Your task to perform on an android device: delete browsing data in the chrome app Image 0: 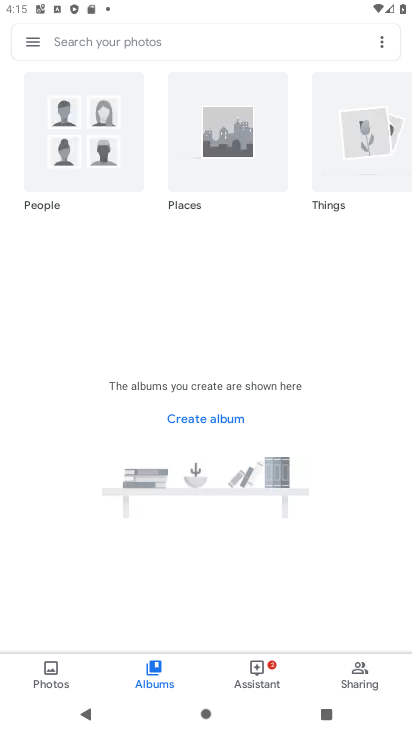
Step 0: press home button
Your task to perform on an android device: delete browsing data in the chrome app Image 1: 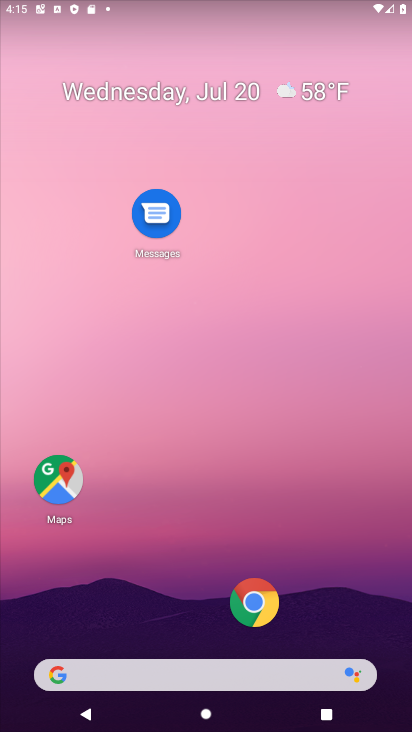
Step 1: click (251, 611)
Your task to perform on an android device: delete browsing data in the chrome app Image 2: 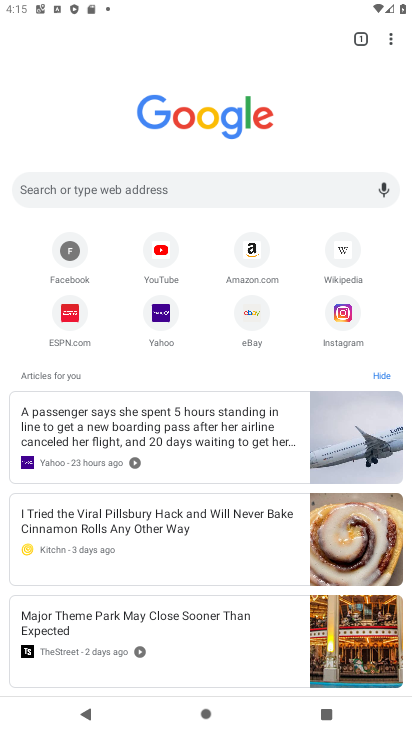
Step 2: click (394, 36)
Your task to perform on an android device: delete browsing data in the chrome app Image 3: 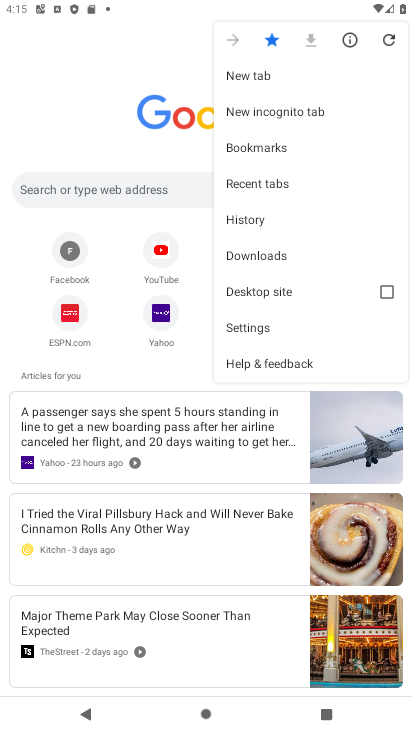
Step 3: click (246, 218)
Your task to perform on an android device: delete browsing data in the chrome app Image 4: 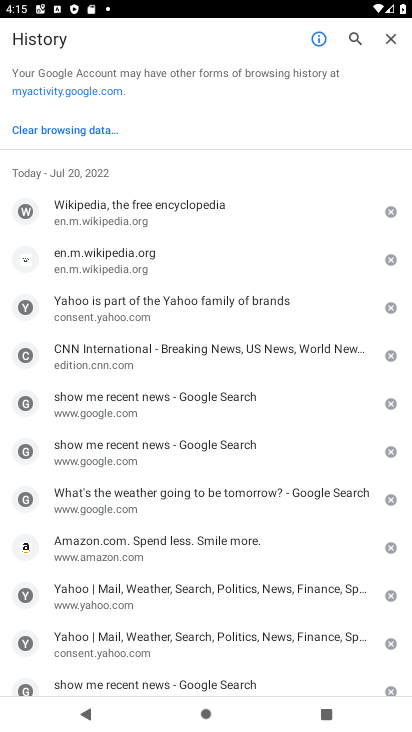
Step 4: click (48, 128)
Your task to perform on an android device: delete browsing data in the chrome app Image 5: 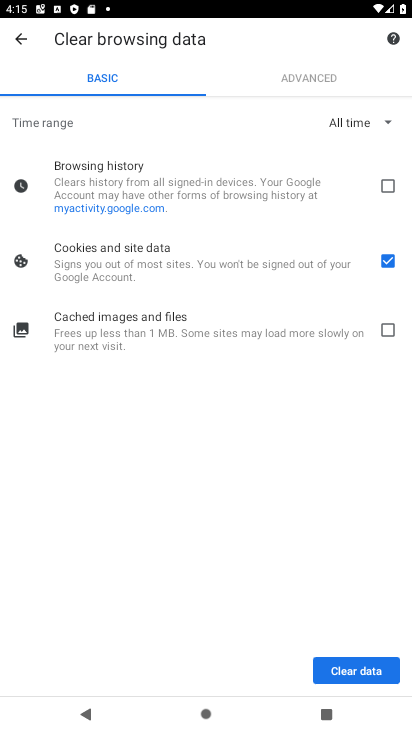
Step 5: click (385, 181)
Your task to perform on an android device: delete browsing data in the chrome app Image 6: 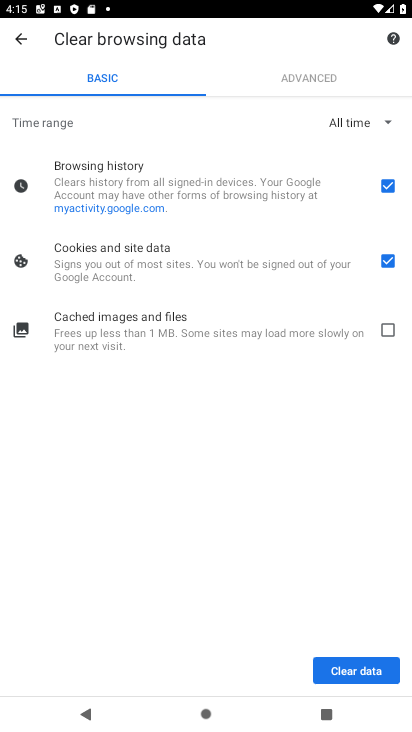
Step 6: click (384, 331)
Your task to perform on an android device: delete browsing data in the chrome app Image 7: 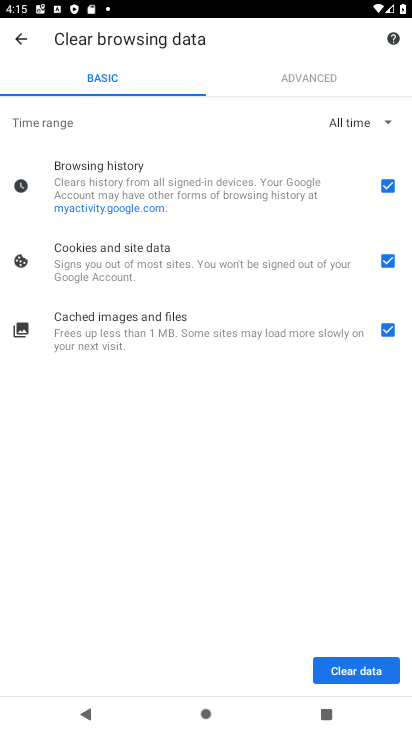
Step 7: click (341, 669)
Your task to perform on an android device: delete browsing data in the chrome app Image 8: 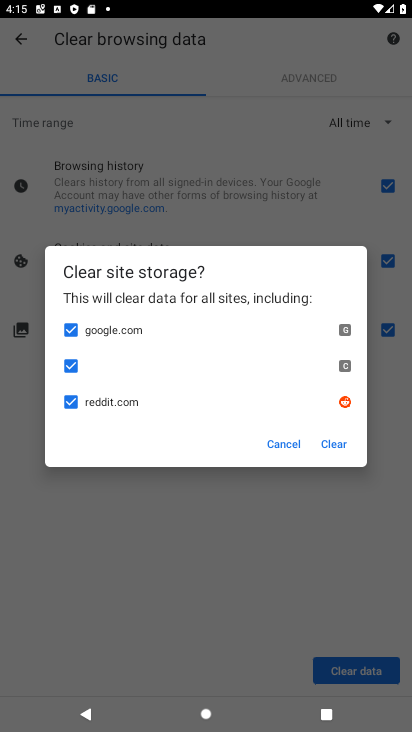
Step 8: click (328, 442)
Your task to perform on an android device: delete browsing data in the chrome app Image 9: 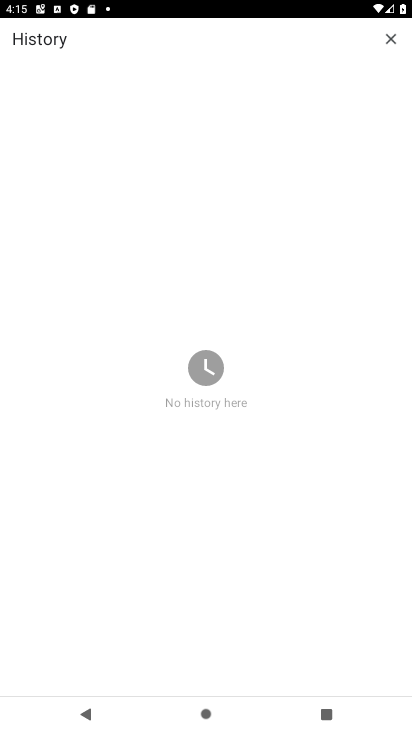
Step 9: task complete